Your task to perform on an android device: read, delete, or share a saved page in the chrome app Image 0: 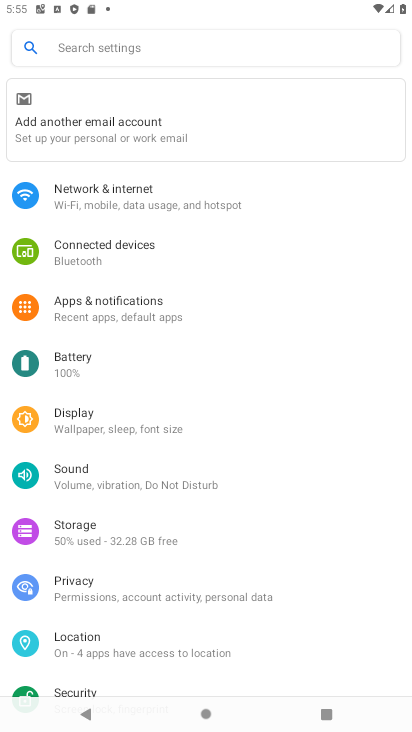
Step 0: press home button
Your task to perform on an android device: read, delete, or share a saved page in the chrome app Image 1: 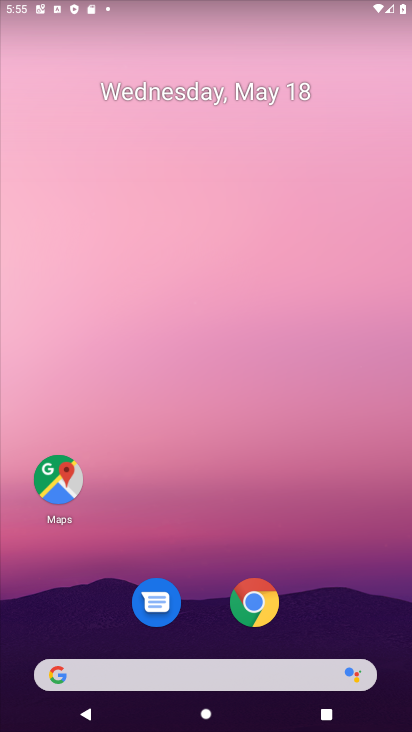
Step 1: drag from (328, 650) to (325, 74)
Your task to perform on an android device: read, delete, or share a saved page in the chrome app Image 2: 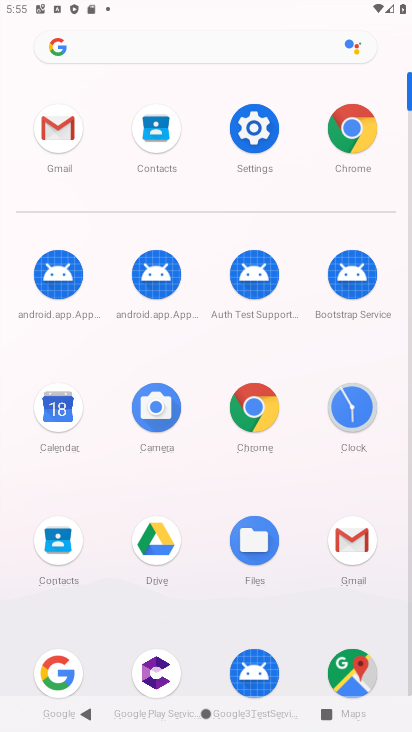
Step 2: click (242, 433)
Your task to perform on an android device: read, delete, or share a saved page in the chrome app Image 3: 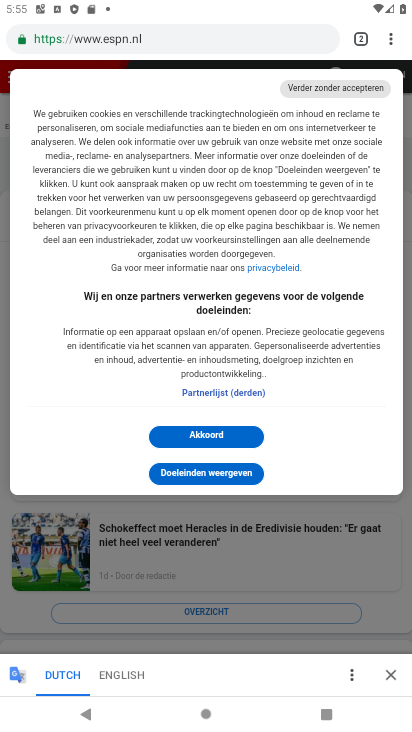
Step 3: click (385, 30)
Your task to perform on an android device: read, delete, or share a saved page in the chrome app Image 4: 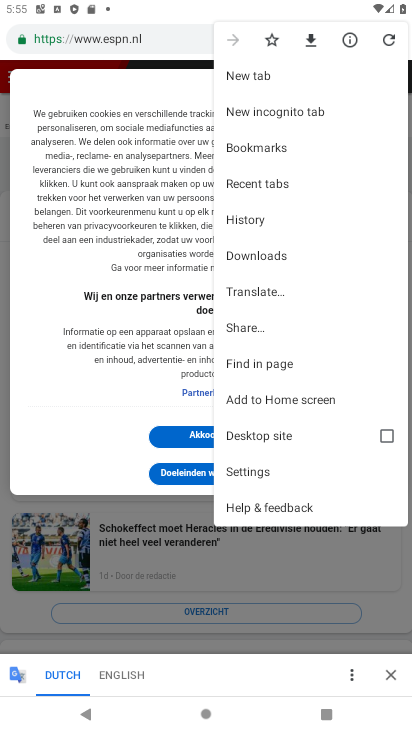
Step 4: click (264, 256)
Your task to perform on an android device: read, delete, or share a saved page in the chrome app Image 5: 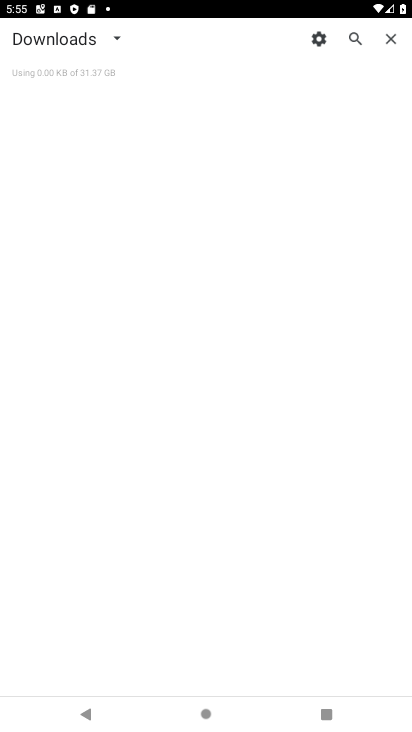
Step 5: task complete